Your task to perform on an android device: Open Google Chrome Image 0: 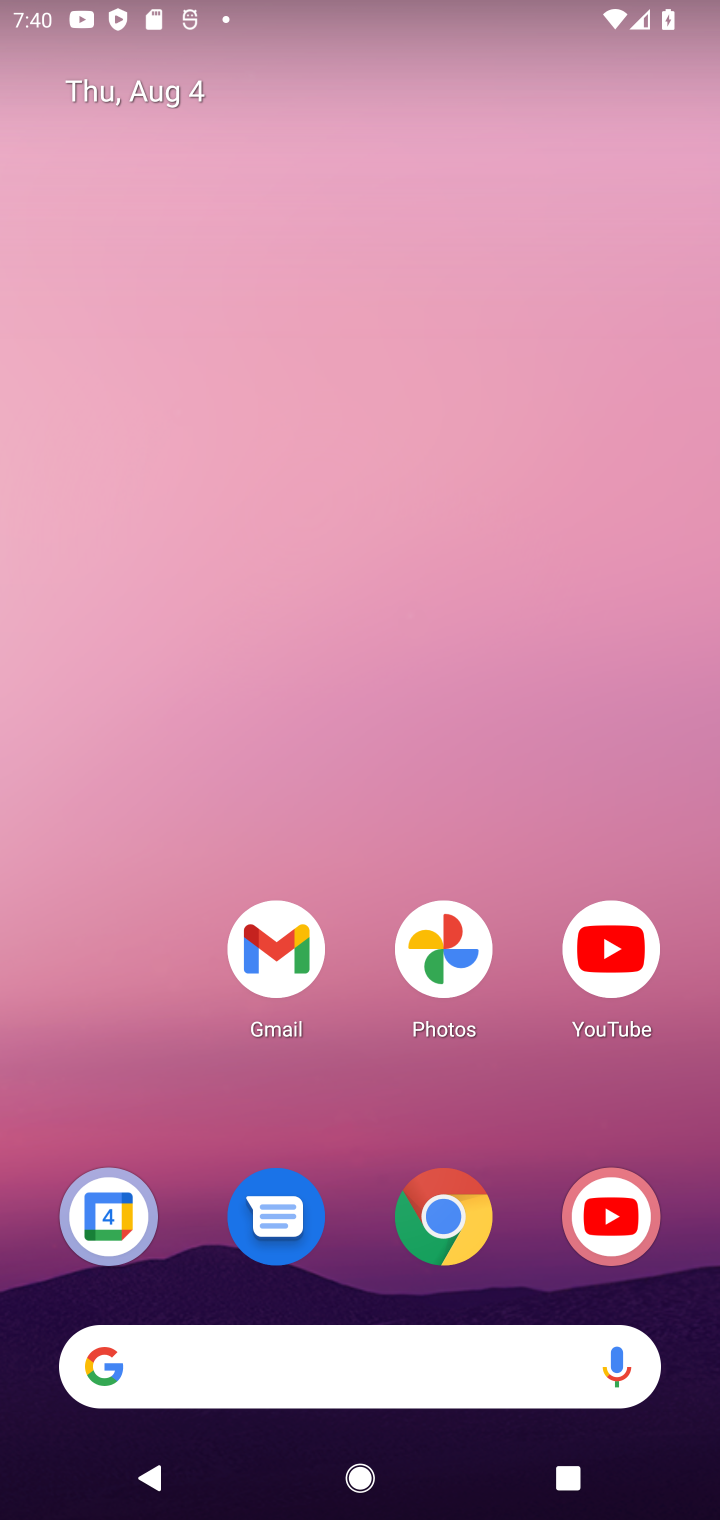
Step 0: drag from (358, 1310) to (408, 313)
Your task to perform on an android device: Open Google Chrome Image 1: 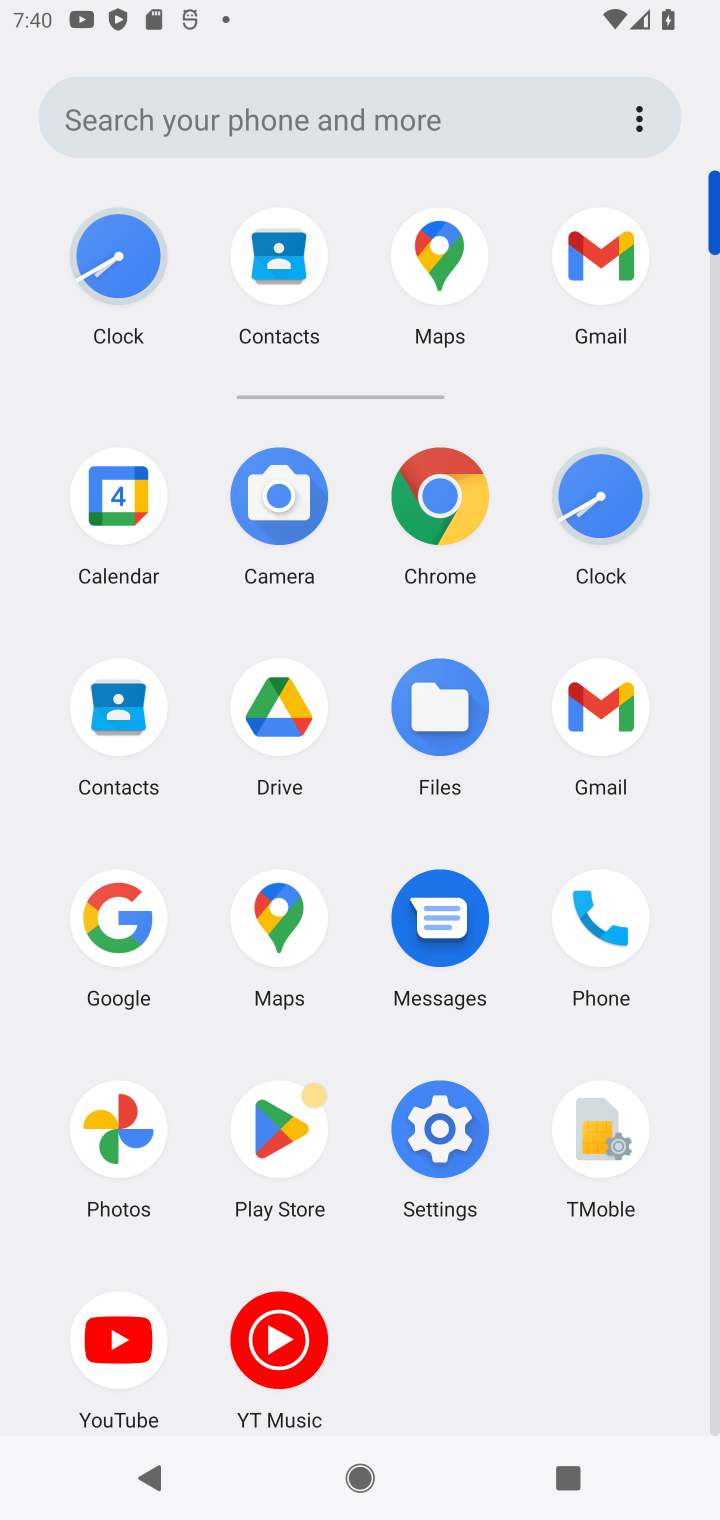
Step 1: click (444, 513)
Your task to perform on an android device: Open Google Chrome Image 2: 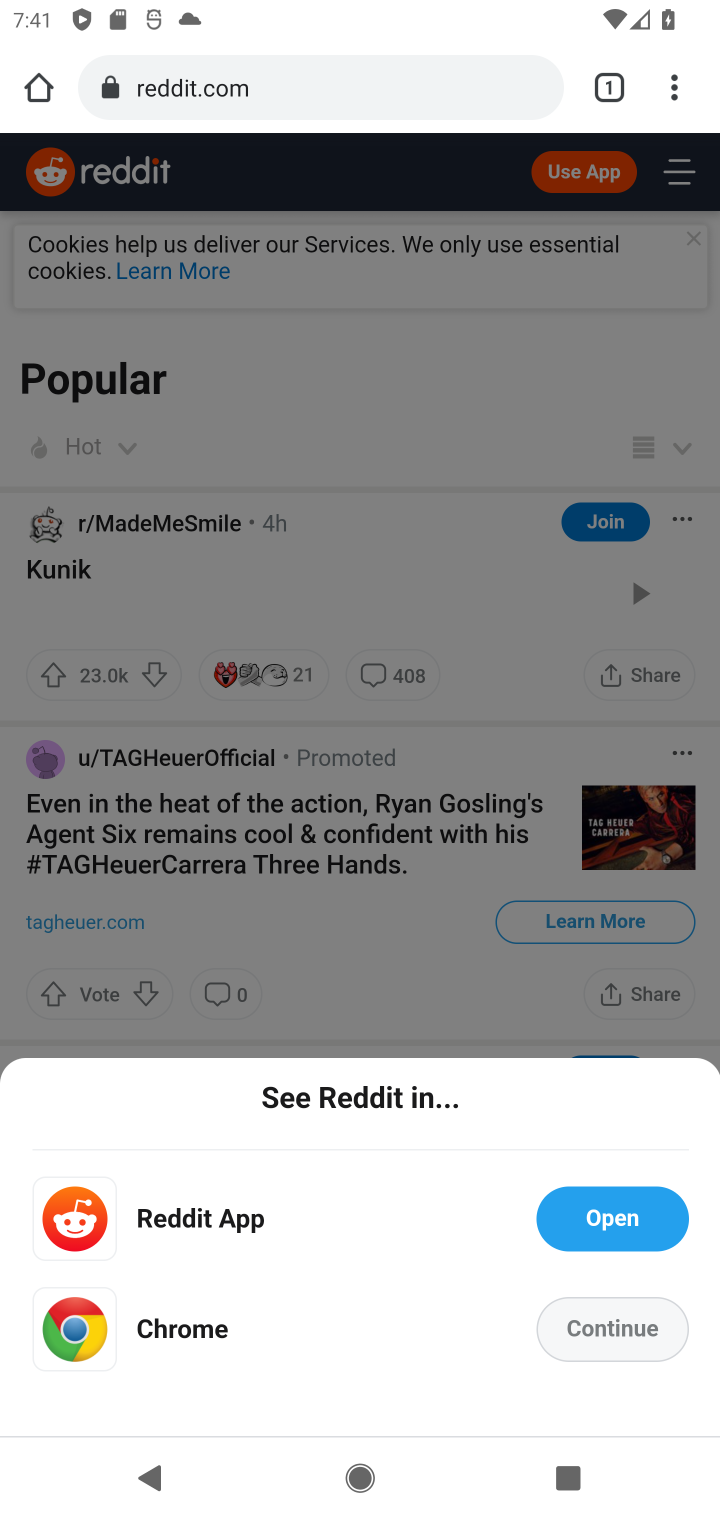
Step 2: task complete